Your task to perform on an android device: Open maps Image 0: 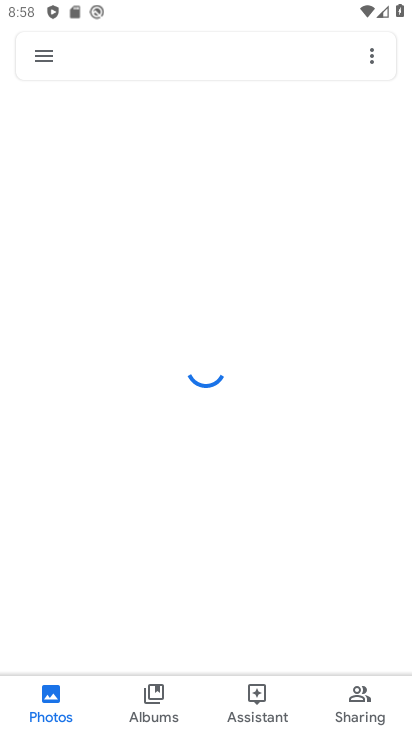
Step 0: press home button
Your task to perform on an android device: Open maps Image 1: 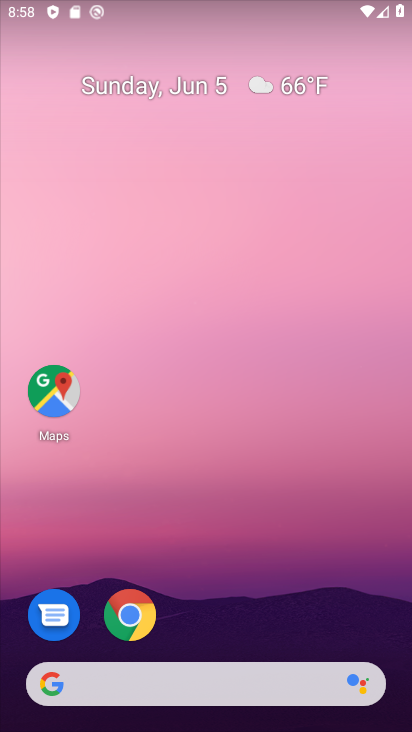
Step 1: click (35, 387)
Your task to perform on an android device: Open maps Image 2: 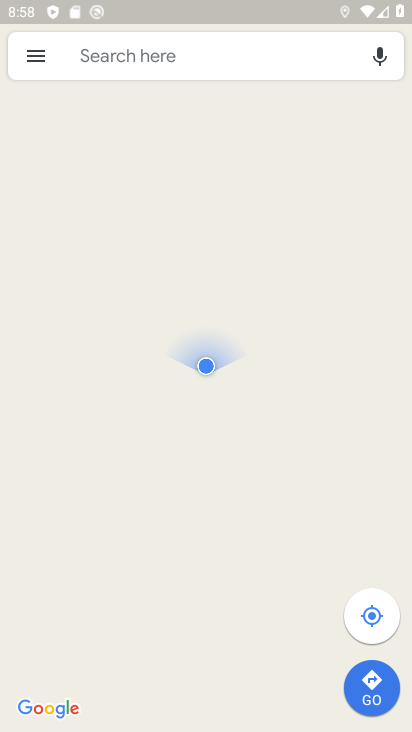
Step 2: task complete